Your task to perform on an android device: Open eBay Image 0: 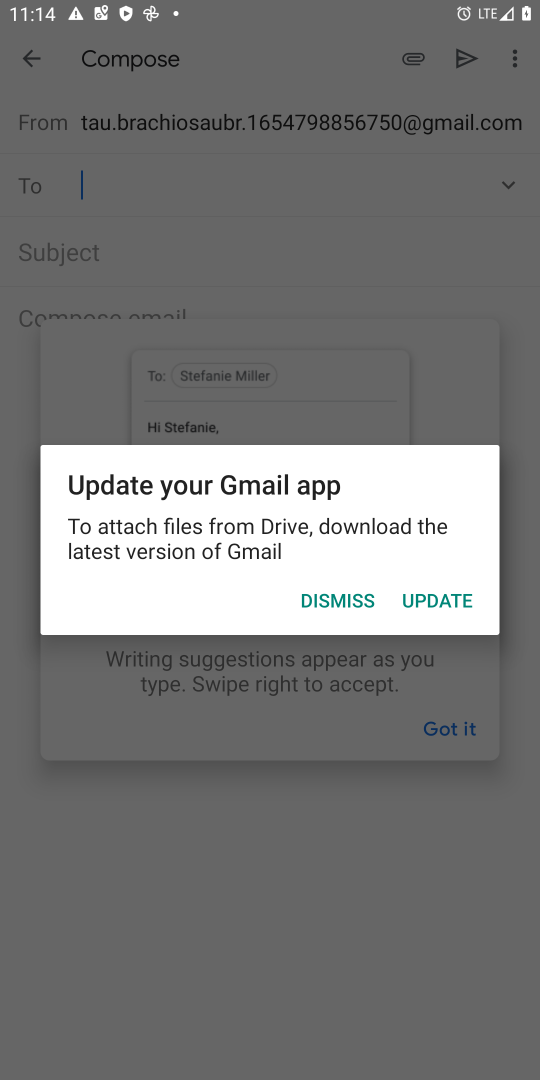
Step 0: press home button
Your task to perform on an android device: Open eBay Image 1: 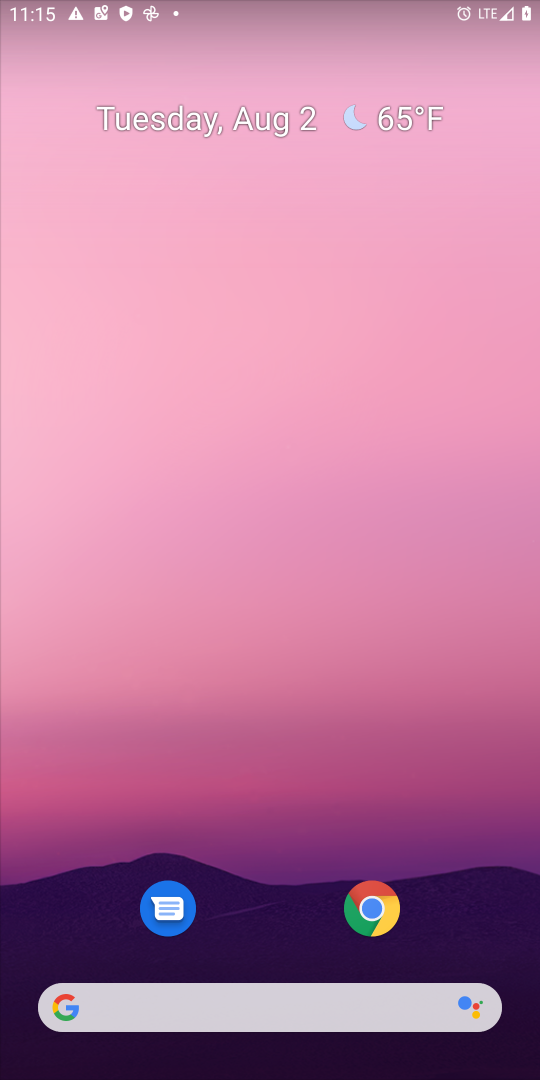
Step 1: drag from (261, 678) to (244, 322)
Your task to perform on an android device: Open eBay Image 2: 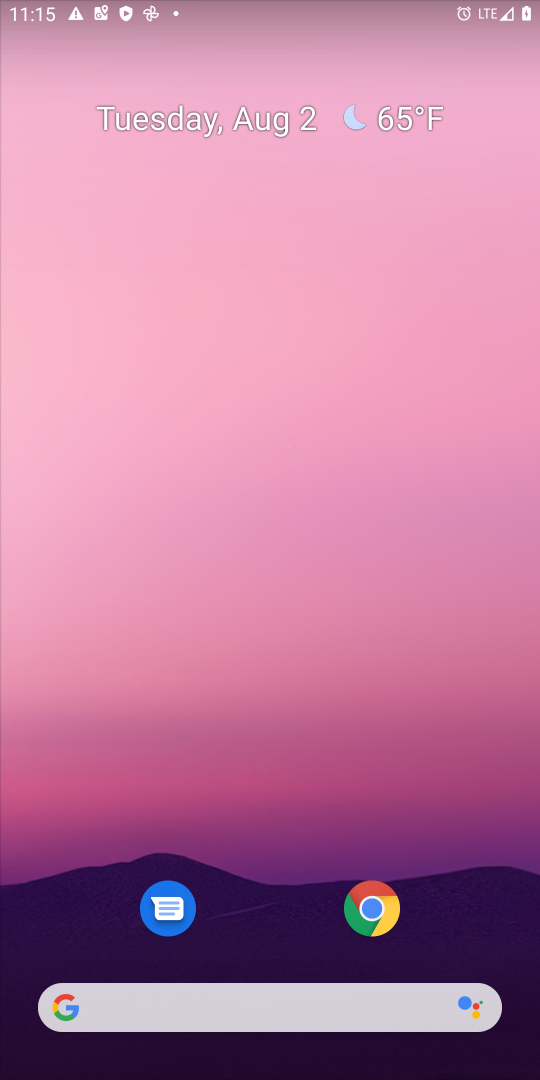
Step 2: drag from (233, 897) to (292, 125)
Your task to perform on an android device: Open eBay Image 3: 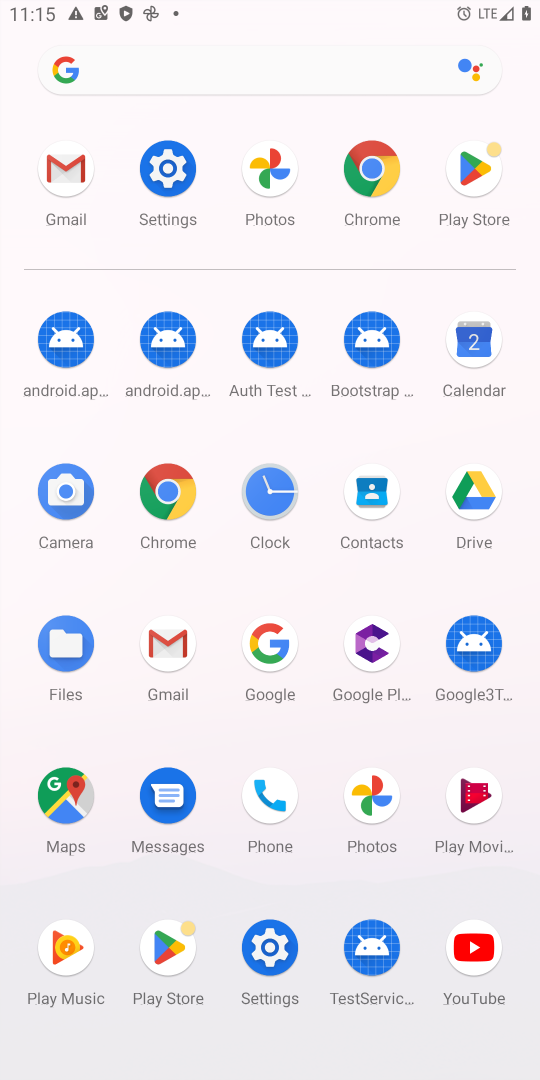
Step 3: click (368, 177)
Your task to perform on an android device: Open eBay Image 4: 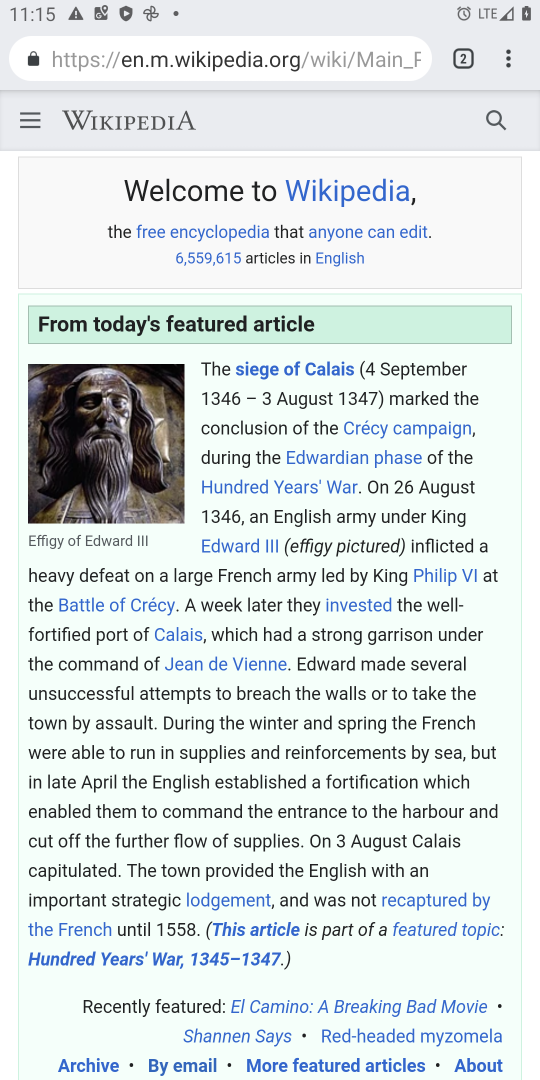
Step 4: click (456, 65)
Your task to perform on an android device: Open eBay Image 5: 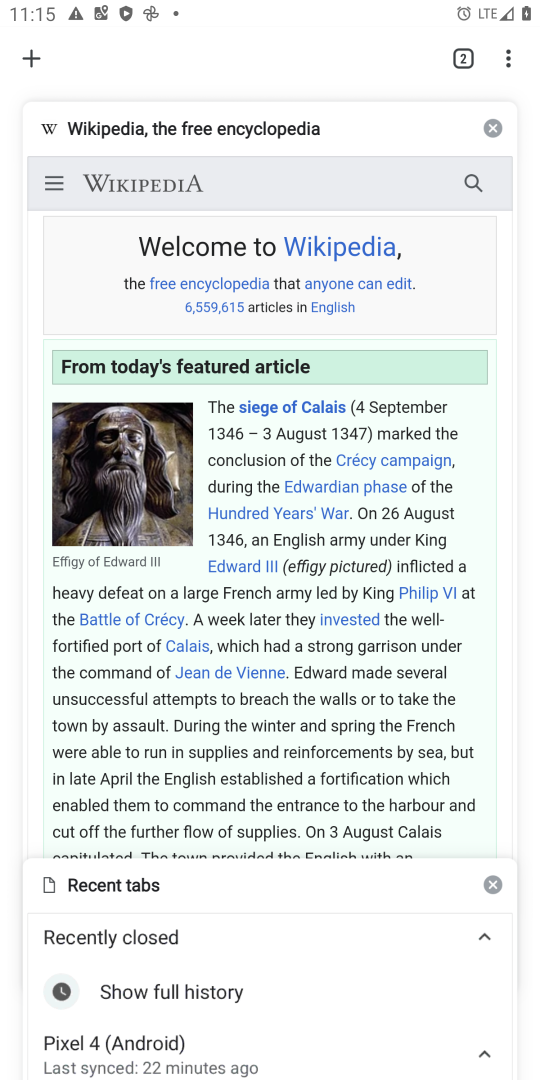
Step 5: click (39, 66)
Your task to perform on an android device: Open eBay Image 6: 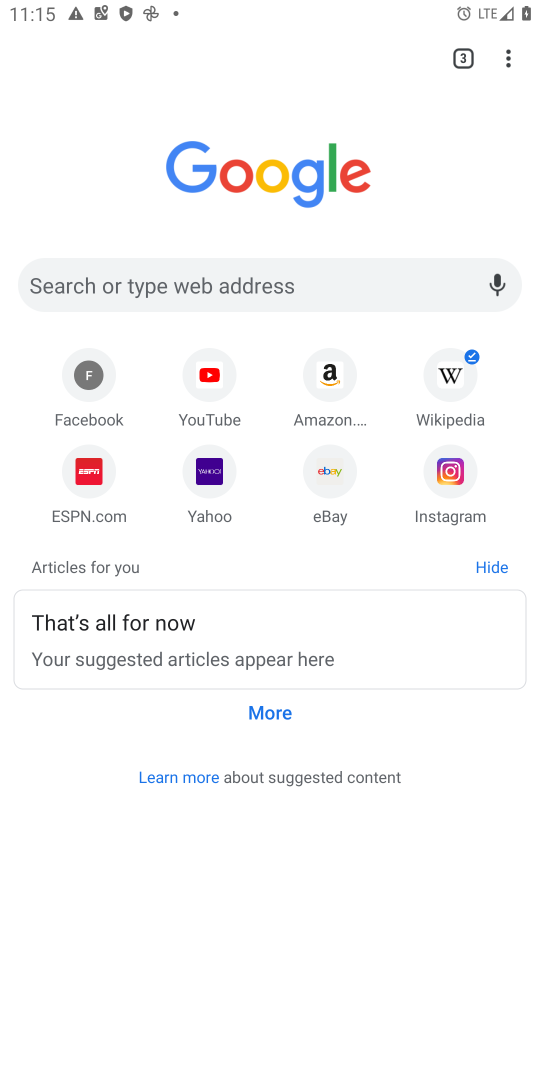
Step 6: click (334, 487)
Your task to perform on an android device: Open eBay Image 7: 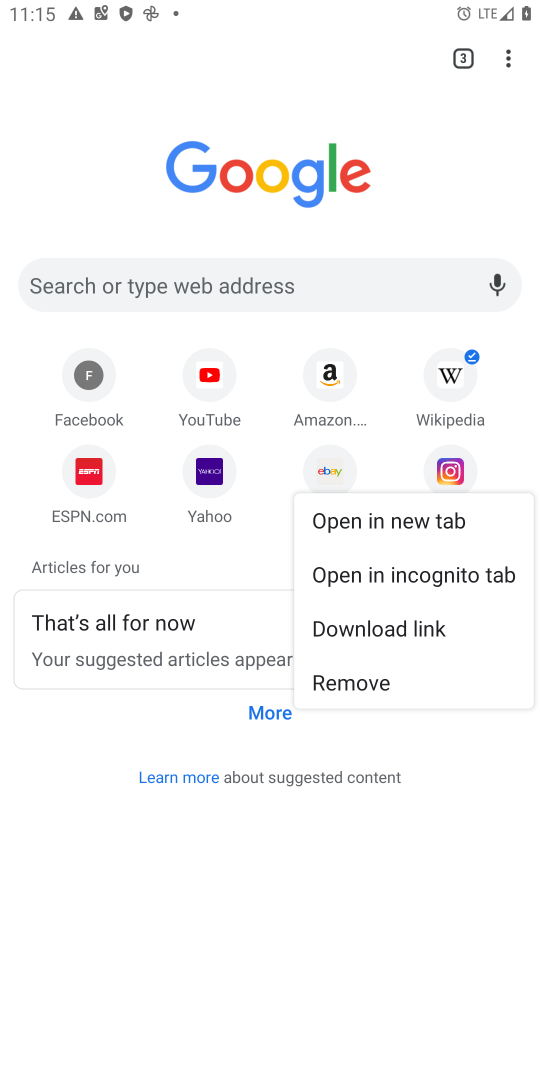
Step 7: click (297, 917)
Your task to perform on an android device: Open eBay Image 8: 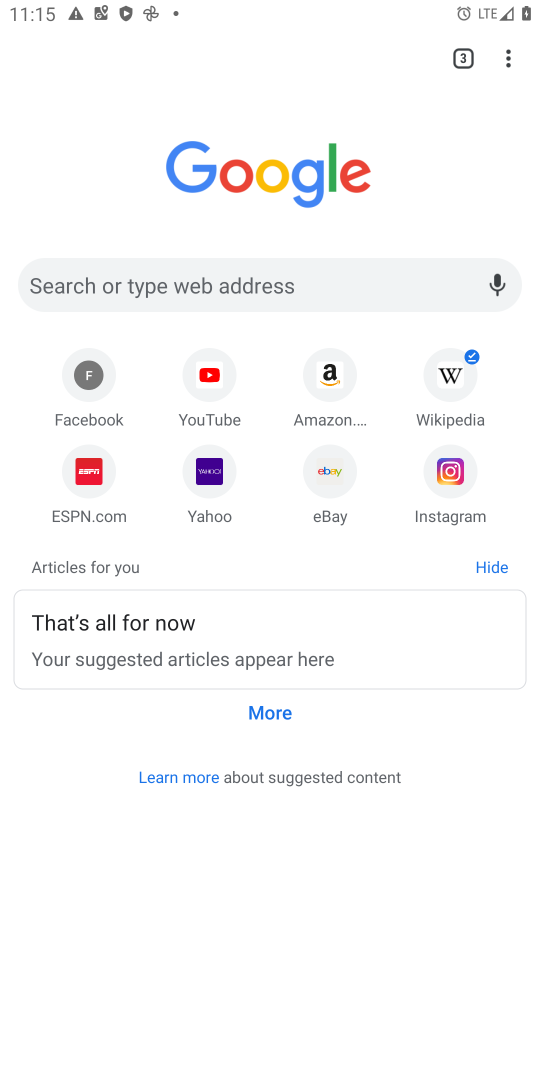
Step 8: click (328, 484)
Your task to perform on an android device: Open eBay Image 9: 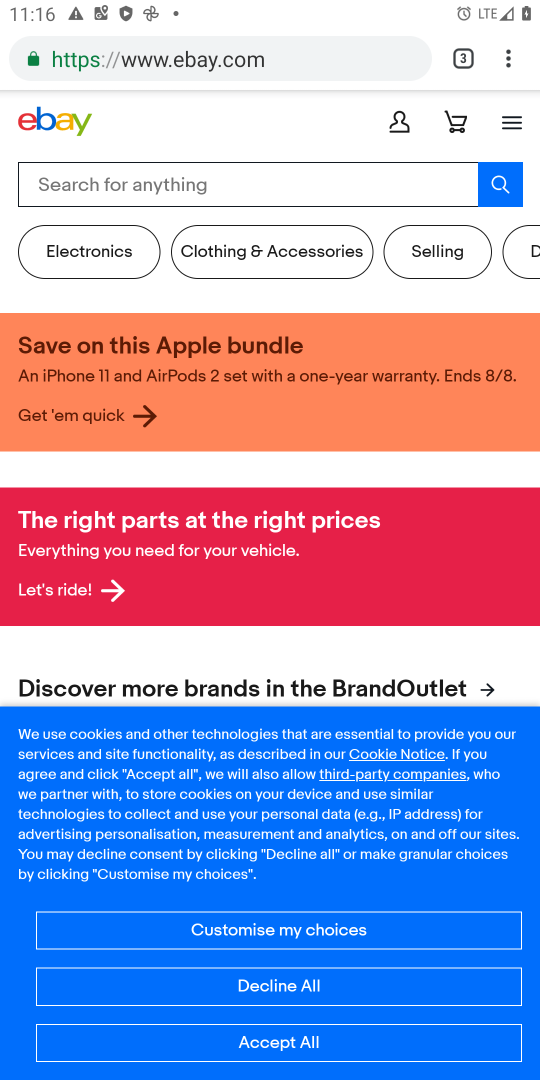
Step 9: task complete